Your task to perform on an android device: toggle notification dots Image 0: 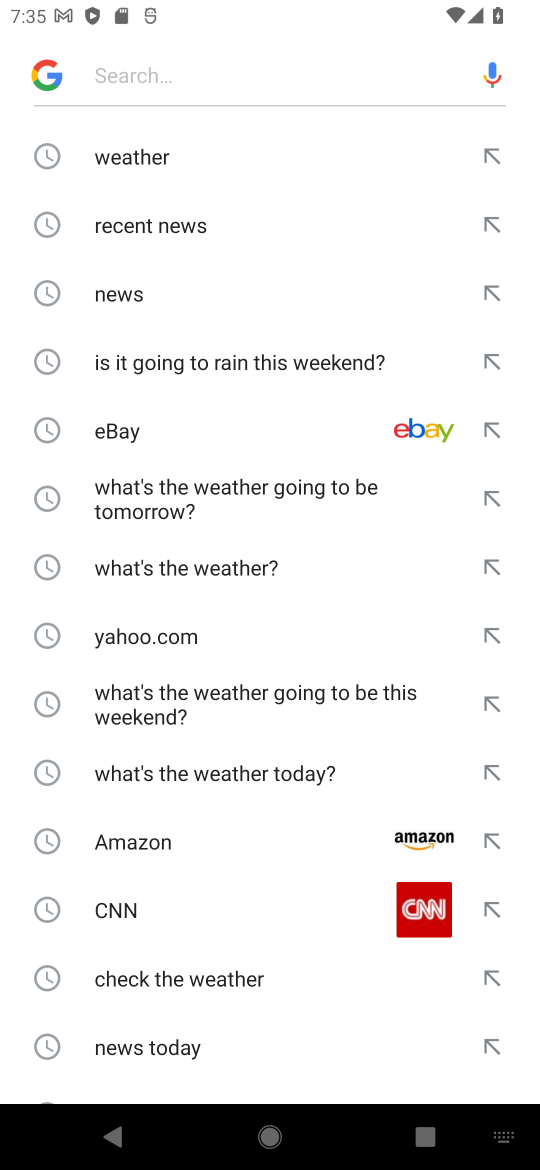
Step 0: press home button
Your task to perform on an android device: toggle notification dots Image 1: 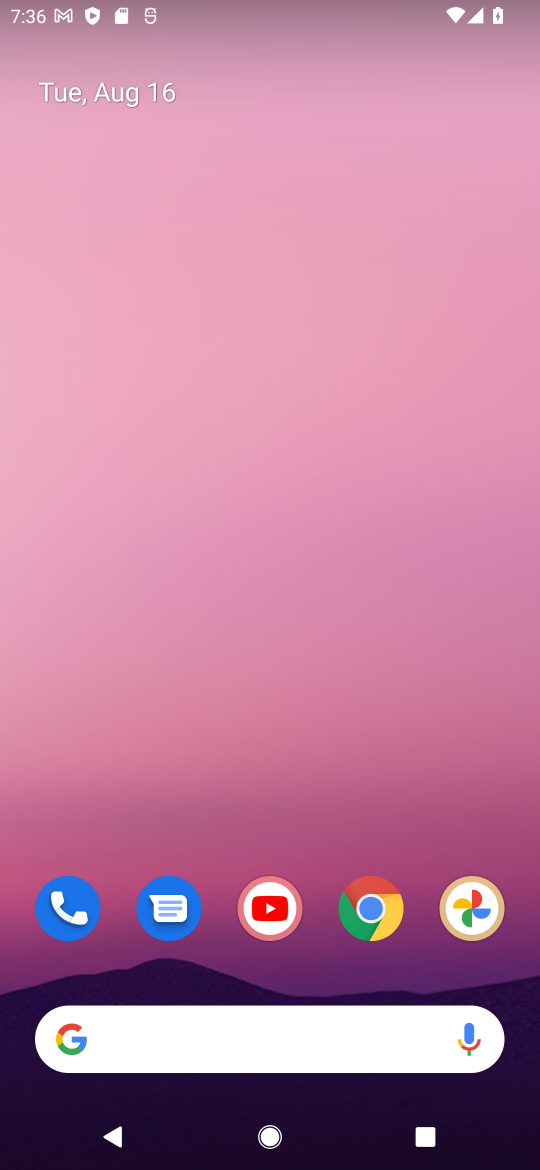
Step 1: drag from (199, 959) to (237, 0)
Your task to perform on an android device: toggle notification dots Image 2: 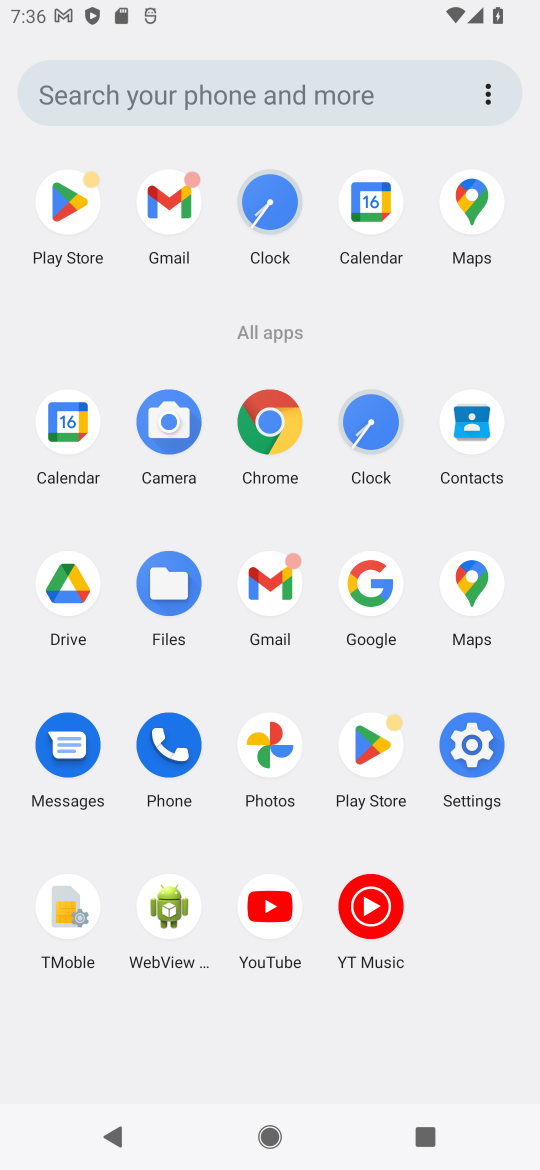
Step 2: click (475, 744)
Your task to perform on an android device: toggle notification dots Image 3: 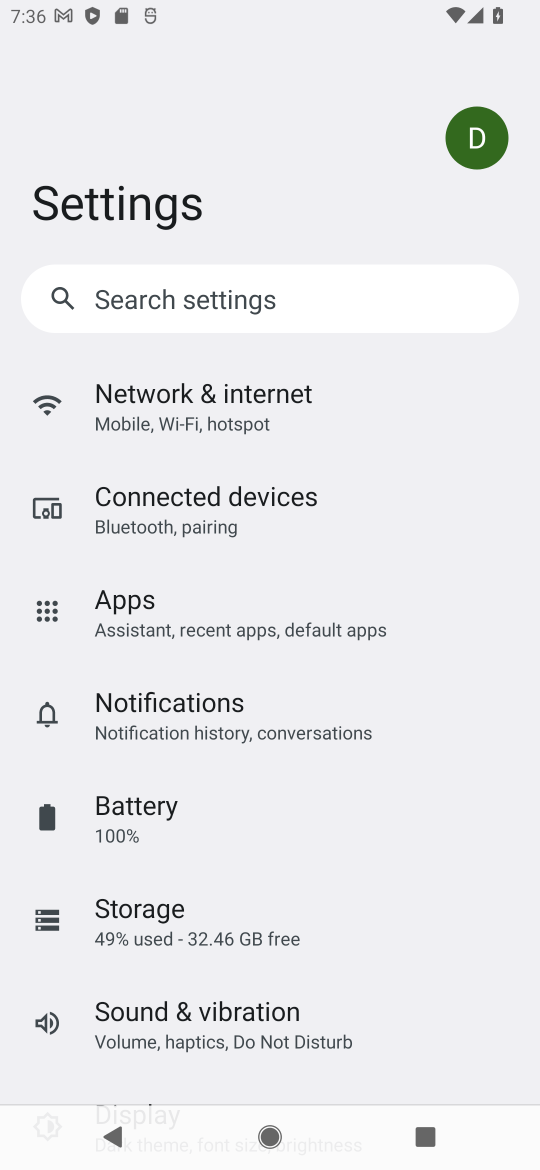
Step 3: click (175, 718)
Your task to perform on an android device: toggle notification dots Image 4: 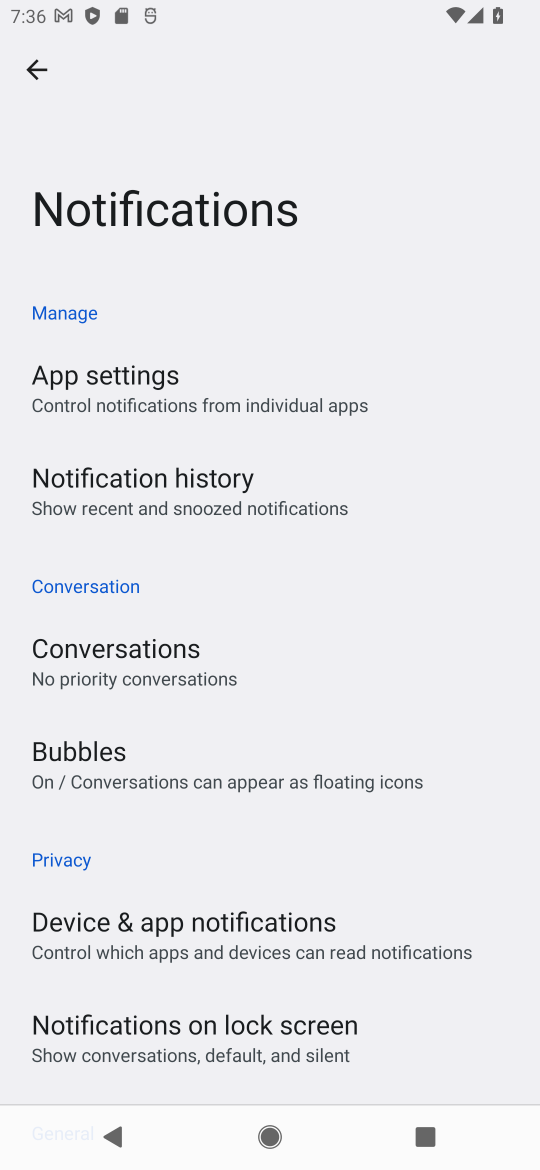
Step 4: drag from (303, 885) to (357, 58)
Your task to perform on an android device: toggle notification dots Image 5: 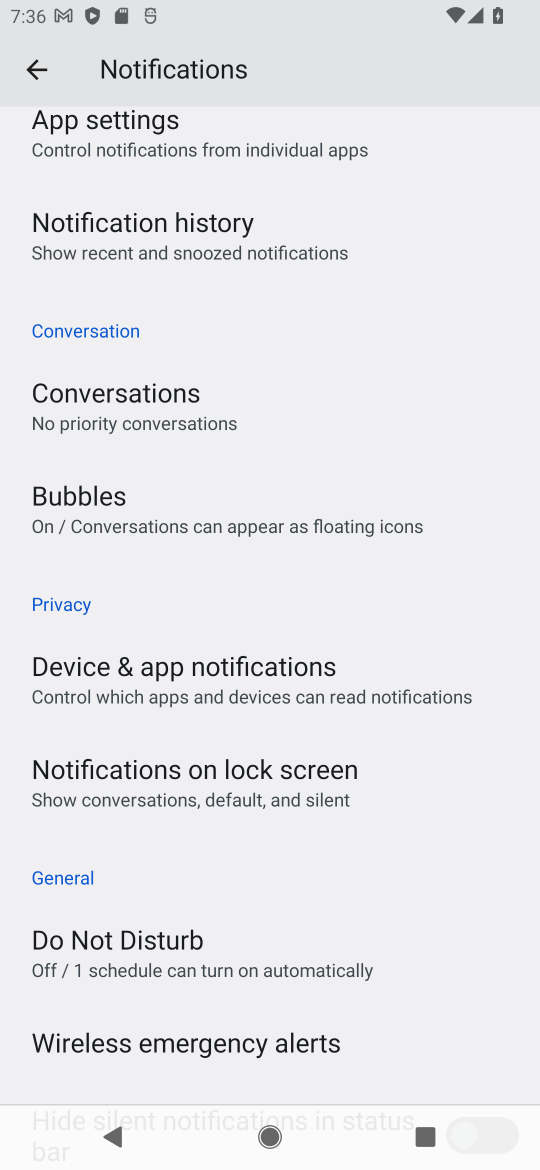
Step 5: click (312, 1003)
Your task to perform on an android device: toggle notification dots Image 6: 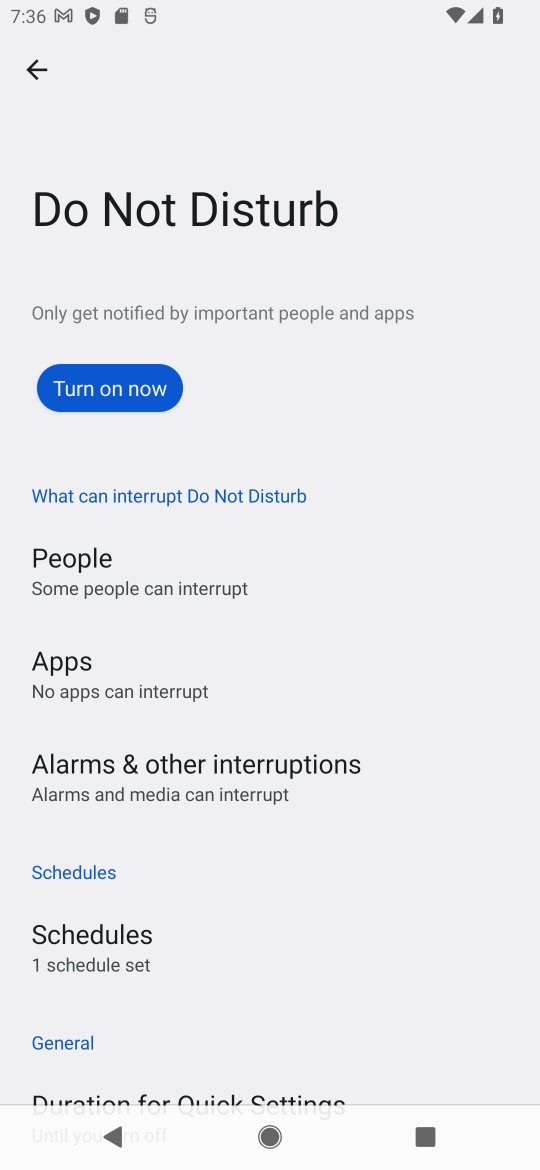
Step 6: click (28, 56)
Your task to perform on an android device: toggle notification dots Image 7: 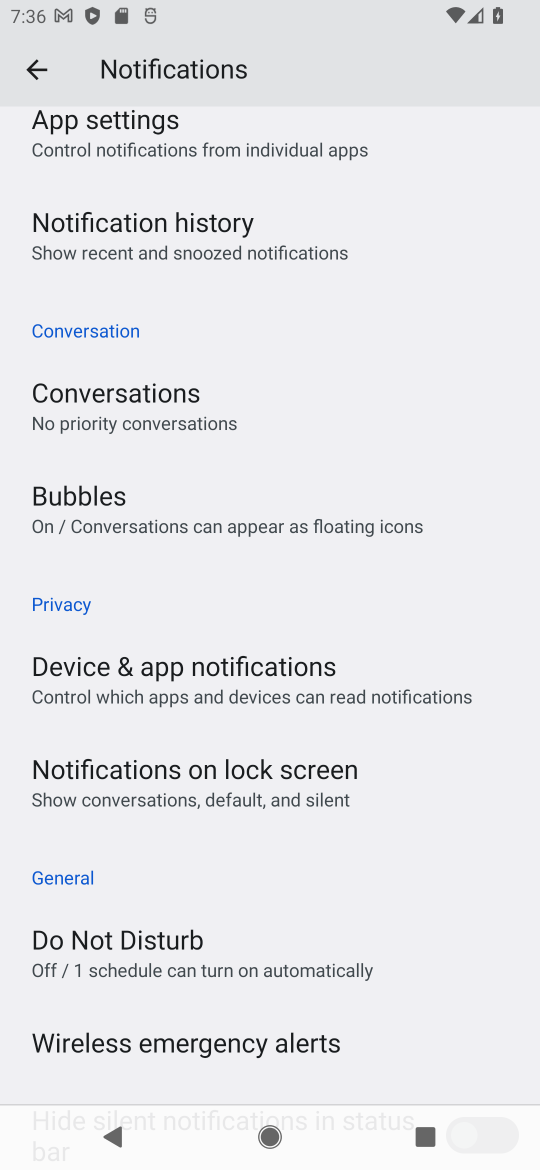
Step 7: drag from (247, 844) to (283, 204)
Your task to perform on an android device: toggle notification dots Image 8: 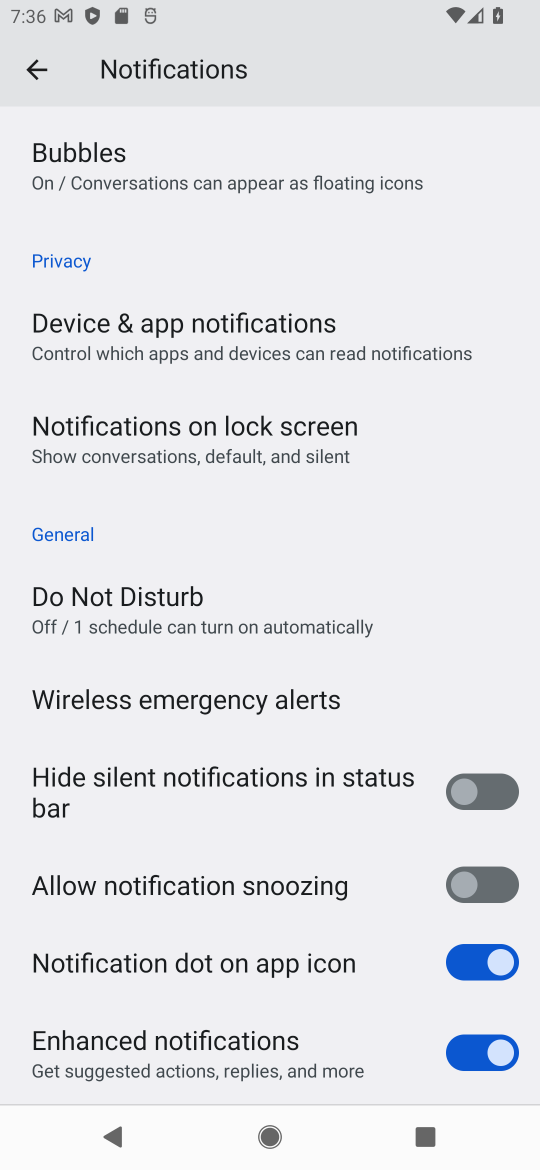
Step 8: click (457, 971)
Your task to perform on an android device: toggle notification dots Image 9: 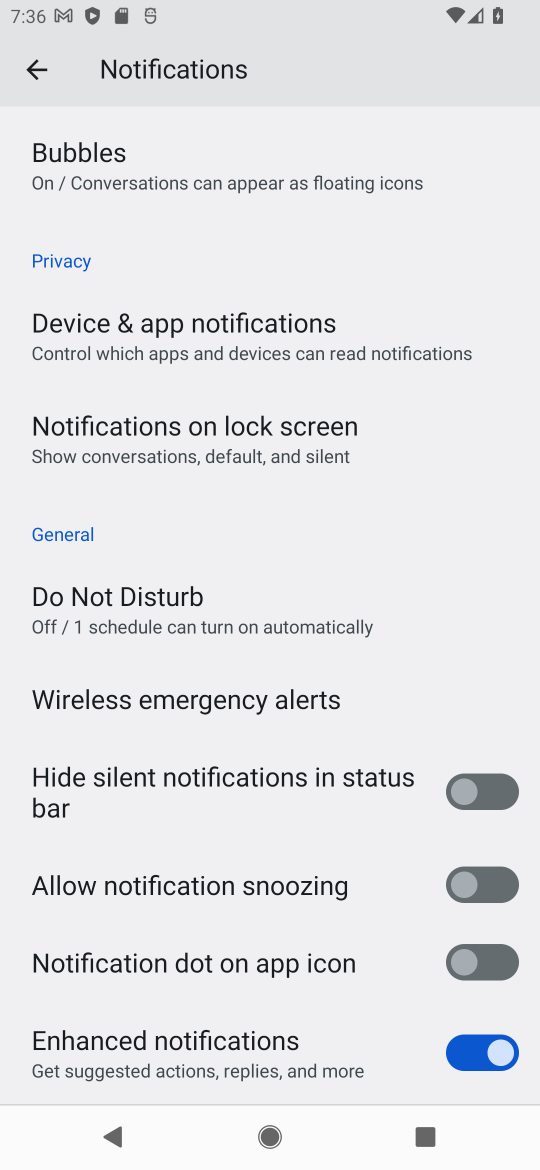
Step 9: task complete